Your task to perform on an android device: Find coffee shops on Maps Image 0: 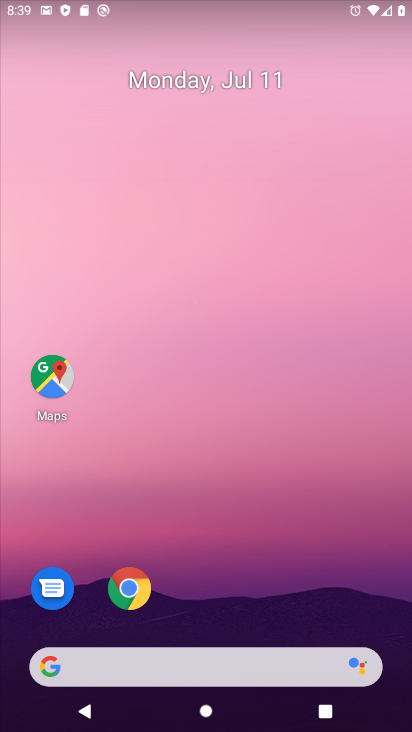
Step 0: click (48, 384)
Your task to perform on an android device: Find coffee shops on Maps Image 1: 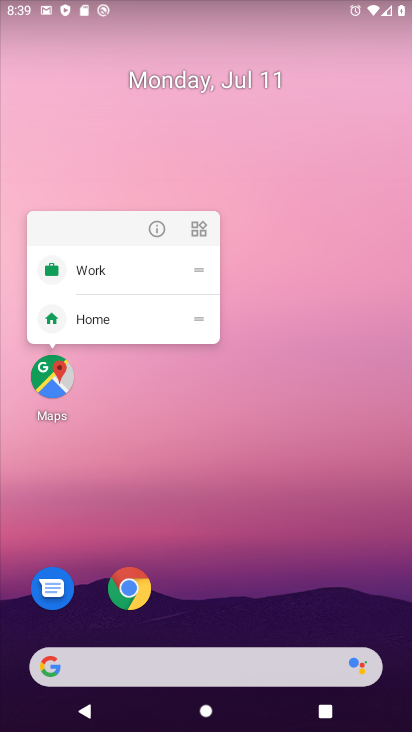
Step 1: click (48, 384)
Your task to perform on an android device: Find coffee shops on Maps Image 2: 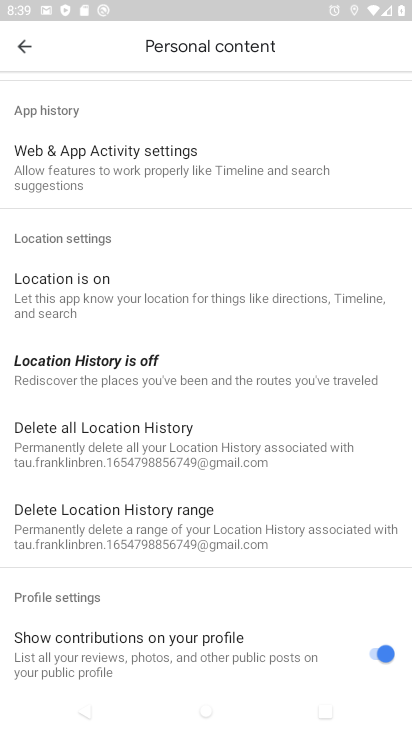
Step 2: click (26, 45)
Your task to perform on an android device: Find coffee shops on Maps Image 3: 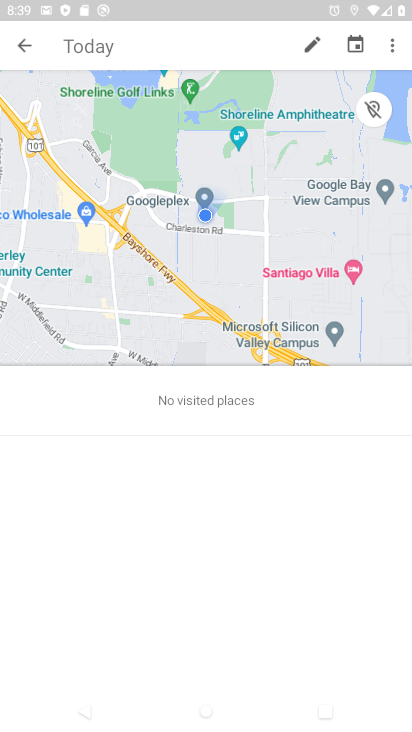
Step 3: click (23, 49)
Your task to perform on an android device: Find coffee shops on Maps Image 4: 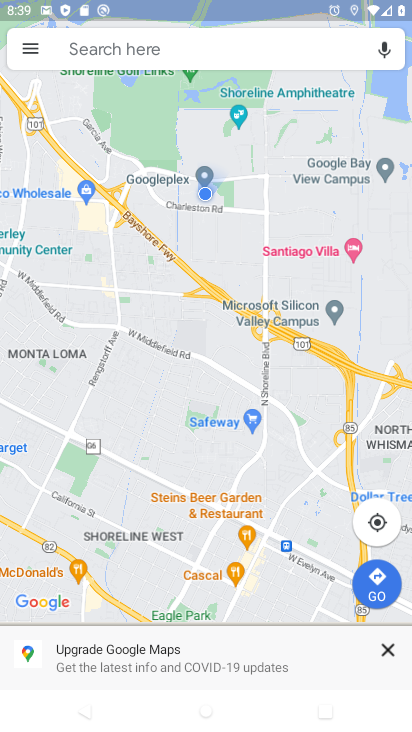
Step 4: click (173, 48)
Your task to perform on an android device: Find coffee shops on Maps Image 5: 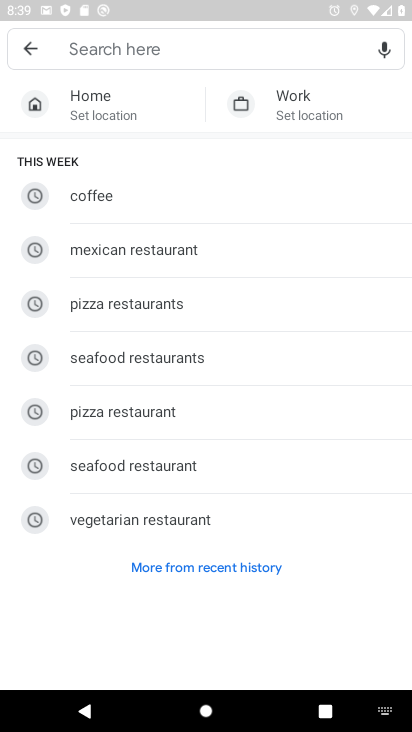
Step 5: click (98, 193)
Your task to perform on an android device: Find coffee shops on Maps Image 6: 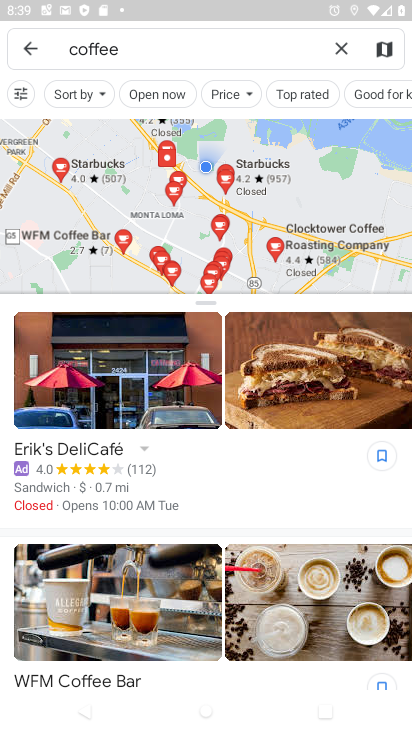
Step 6: task complete